Your task to perform on an android device: Go to eBay Image 0: 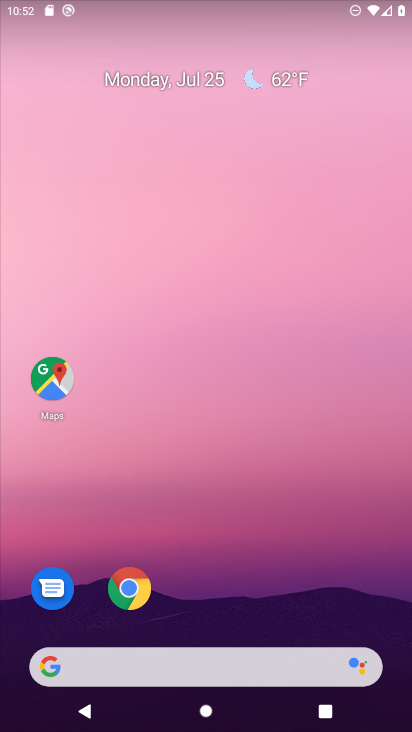
Step 0: click (130, 599)
Your task to perform on an android device: Go to eBay Image 1: 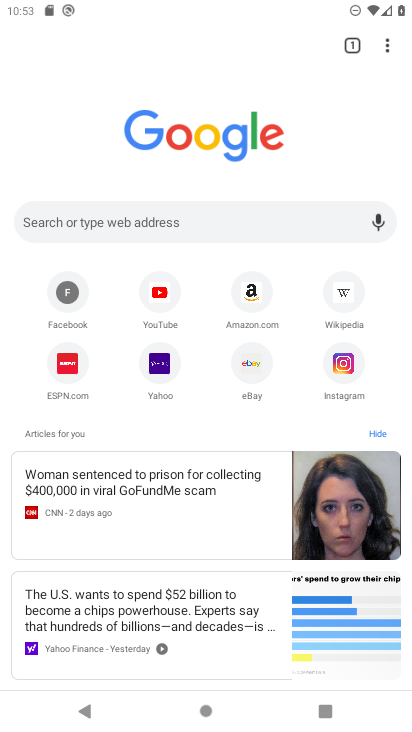
Step 1: click (253, 364)
Your task to perform on an android device: Go to eBay Image 2: 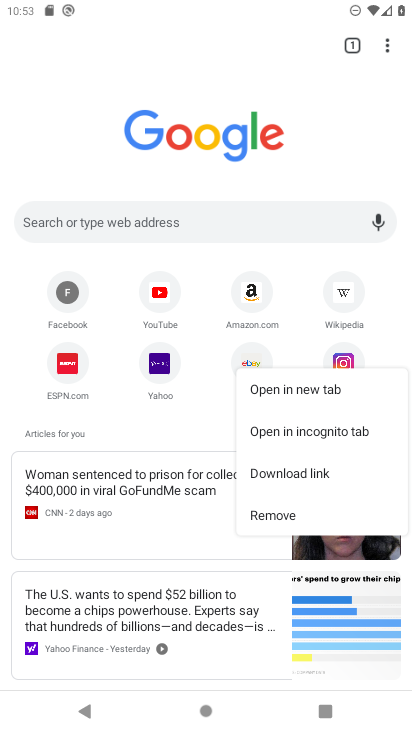
Step 2: click (247, 354)
Your task to perform on an android device: Go to eBay Image 3: 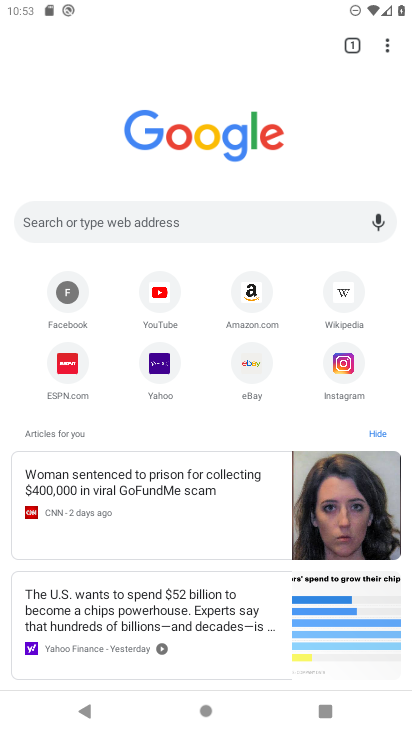
Step 3: click (247, 367)
Your task to perform on an android device: Go to eBay Image 4: 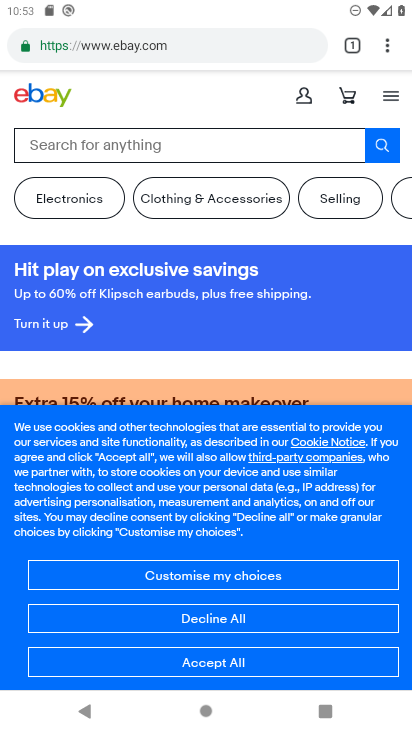
Step 4: task complete